Your task to perform on an android device: When is my next meeting? Image 0: 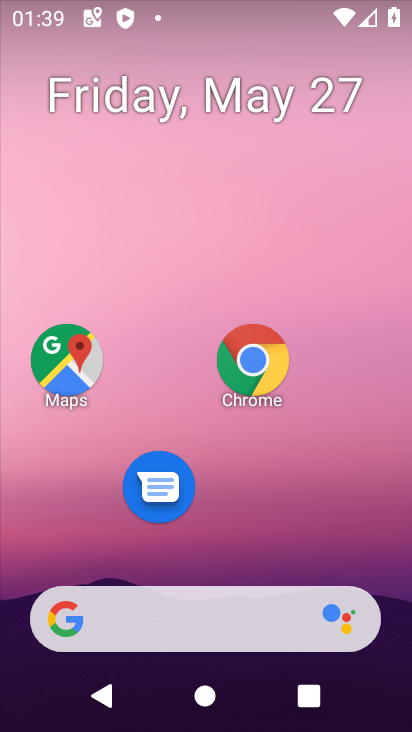
Step 0: drag from (252, 508) to (280, 48)
Your task to perform on an android device: When is my next meeting? Image 1: 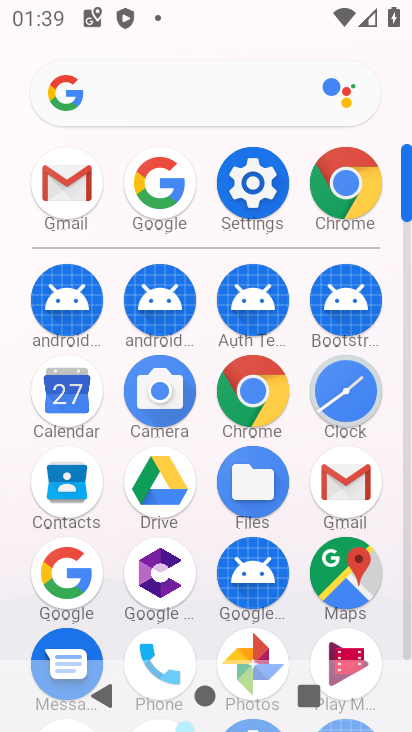
Step 1: click (63, 398)
Your task to perform on an android device: When is my next meeting? Image 2: 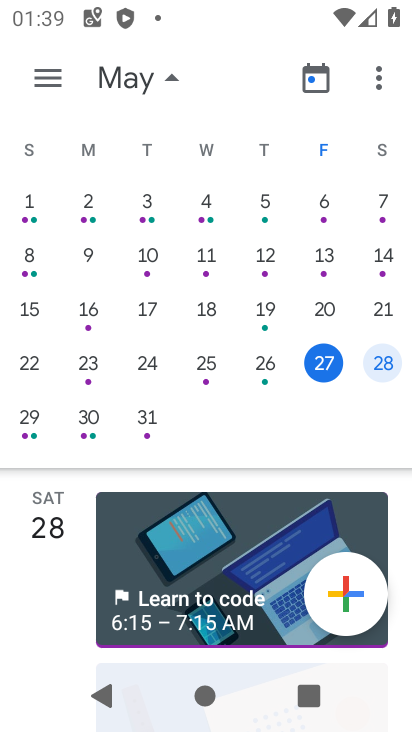
Step 2: click (382, 362)
Your task to perform on an android device: When is my next meeting? Image 3: 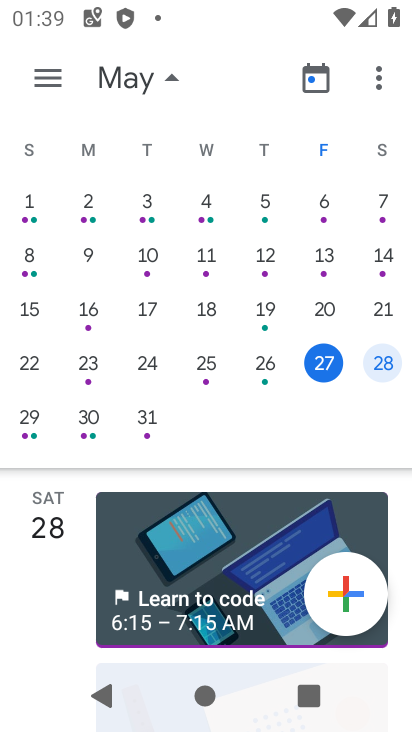
Step 3: task complete